Your task to perform on an android device: Open calendar and show me the first week of next month Image 0: 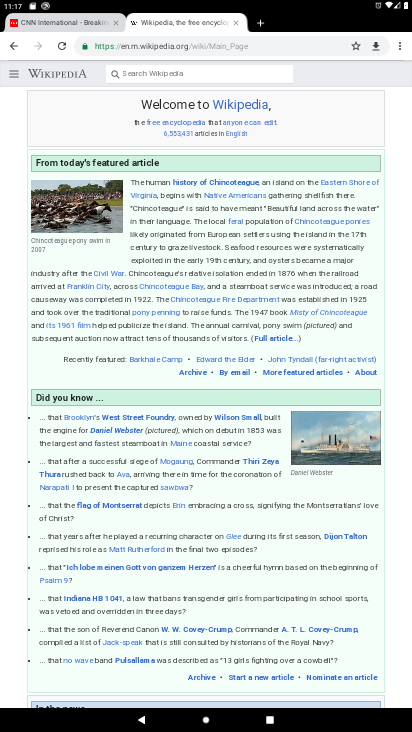
Step 0: press home button
Your task to perform on an android device: Open calendar and show me the first week of next month Image 1: 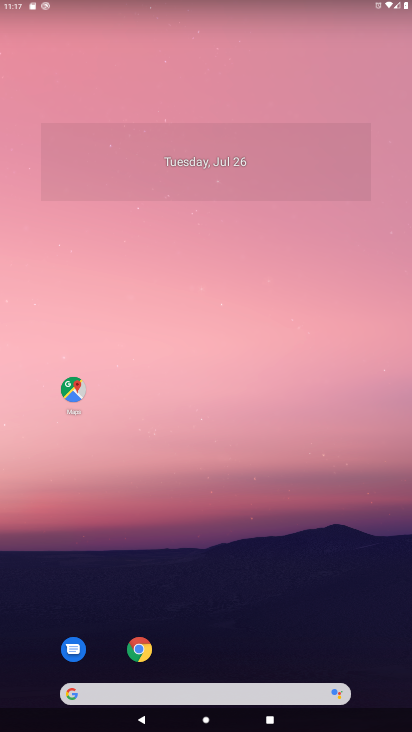
Step 1: drag from (199, 648) to (219, 63)
Your task to perform on an android device: Open calendar and show me the first week of next month Image 2: 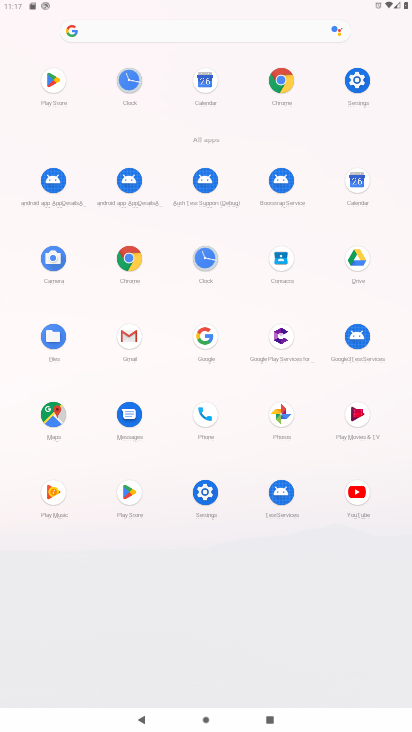
Step 2: click (360, 202)
Your task to perform on an android device: Open calendar and show me the first week of next month Image 3: 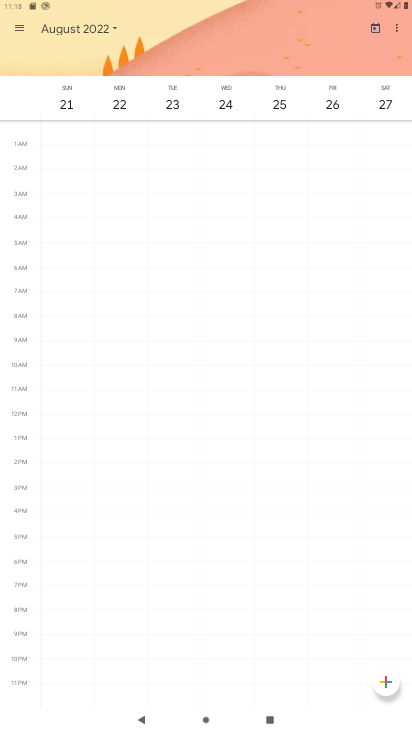
Step 3: task complete